Your task to perform on an android device: Open location settings Image 0: 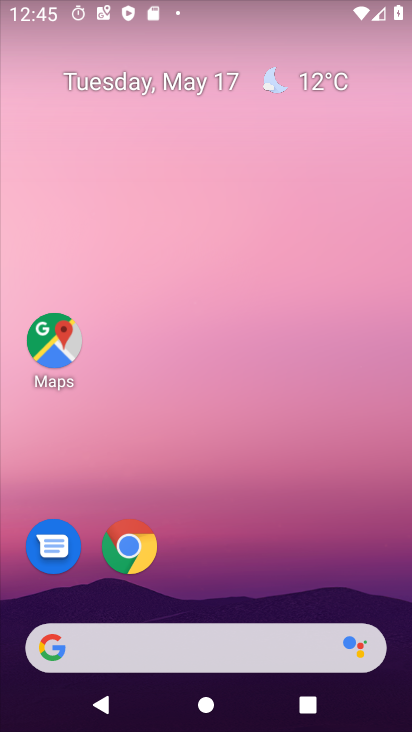
Step 0: drag from (191, 627) to (321, 288)
Your task to perform on an android device: Open location settings Image 1: 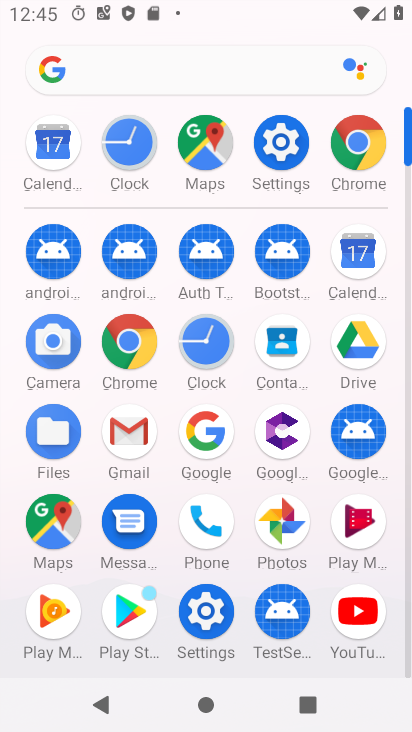
Step 1: click (285, 146)
Your task to perform on an android device: Open location settings Image 2: 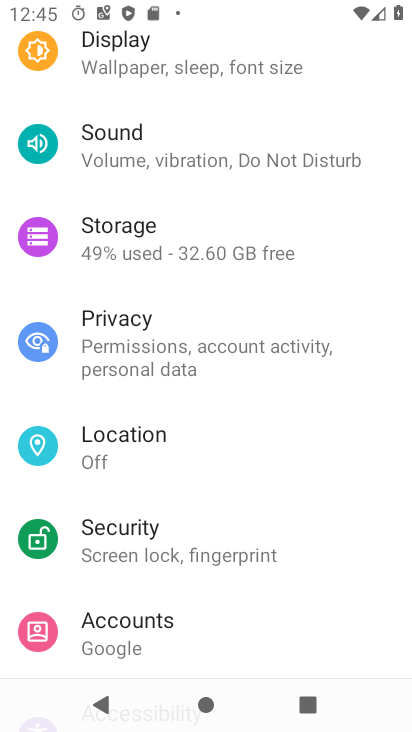
Step 2: click (149, 442)
Your task to perform on an android device: Open location settings Image 3: 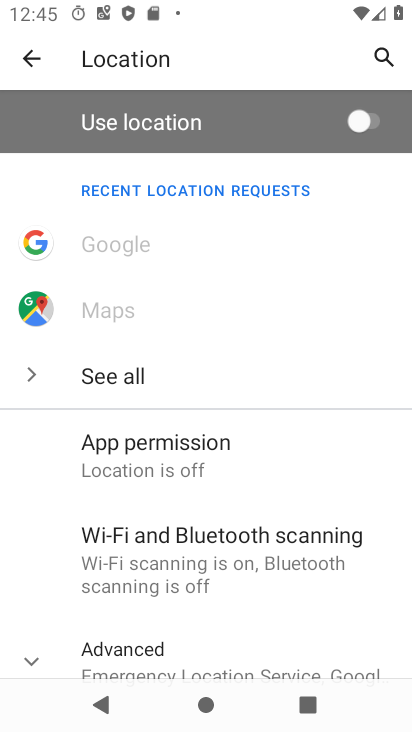
Step 3: task complete